Your task to perform on an android device: clear history in the chrome app Image 0: 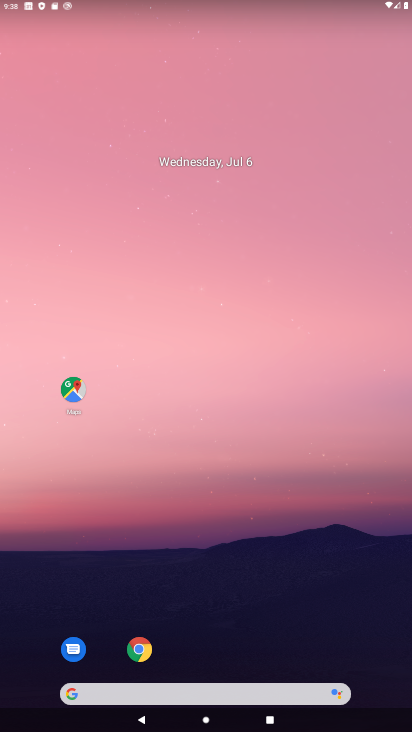
Step 0: drag from (191, 696) to (142, 29)
Your task to perform on an android device: clear history in the chrome app Image 1: 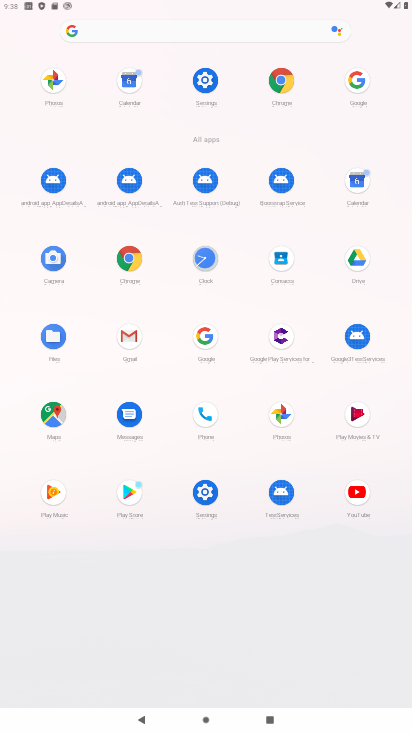
Step 1: click (287, 94)
Your task to perform on an android device: clear history in the chrome app Image 2: 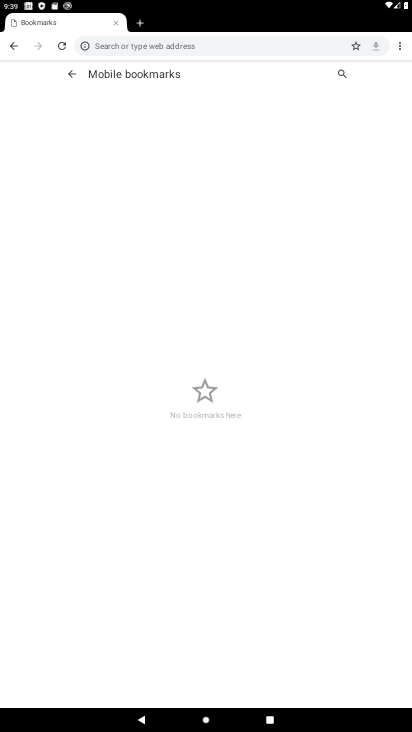
Step 2: drag from (399, 47) to (334, 137)
Your task to perform on an android device: clear history in the chrome app Image 3: 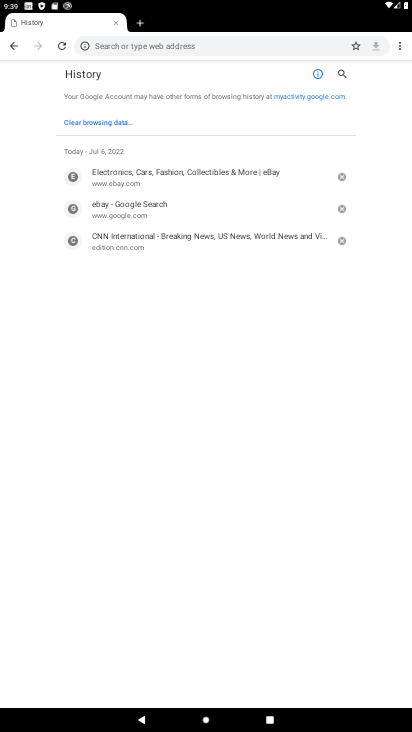
Step 3: click (79, 125)
Your task to perform on an android device: clear history in the chrome app Image 4: 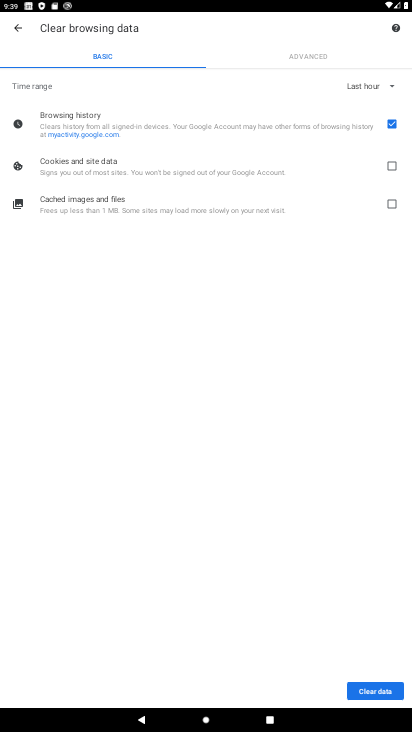
Step 4: click (390, 690)
Your task to perform on an android device: clear history in the chrome app Image 5: 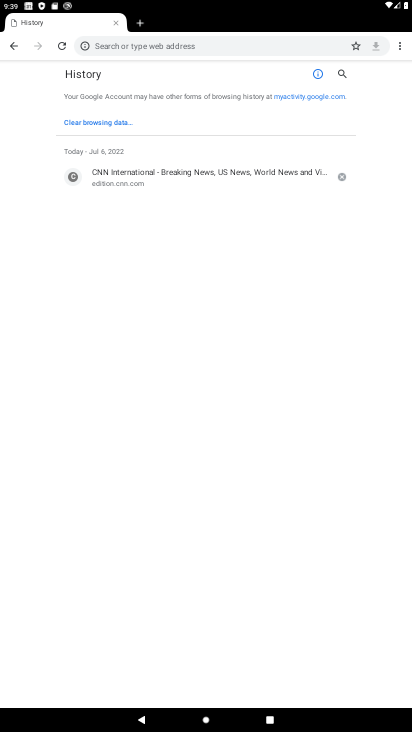
Step 5: task complete